Your task to perform on an android device: add a label to a message in the gmail app Image 0: 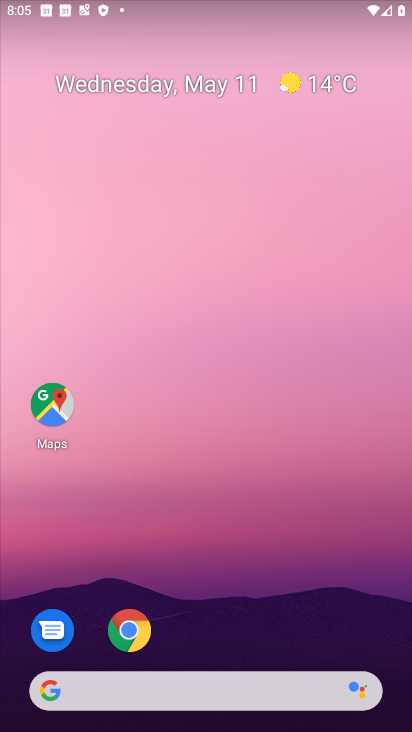
Step 0: drag from (216, 657) to (214, 163)
Your task to perform on an android device: add a label to a message in the gmail app Image 1: 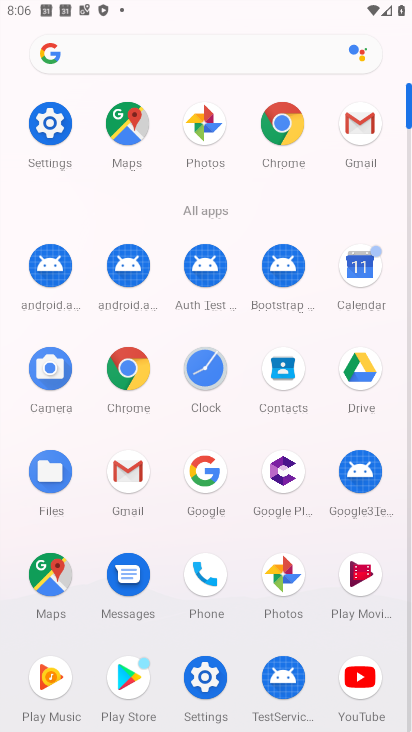
Step 1: click (131, 478)
Your task to perform on an android device: add a label to a message in the gmail app Image 2: 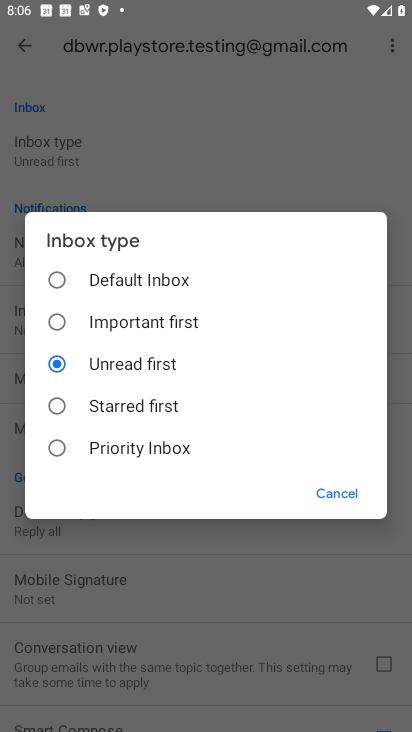
Step 2: click (339, 498)
Your task to perform on an android device: add a label to a message in the gmail app Image 3: 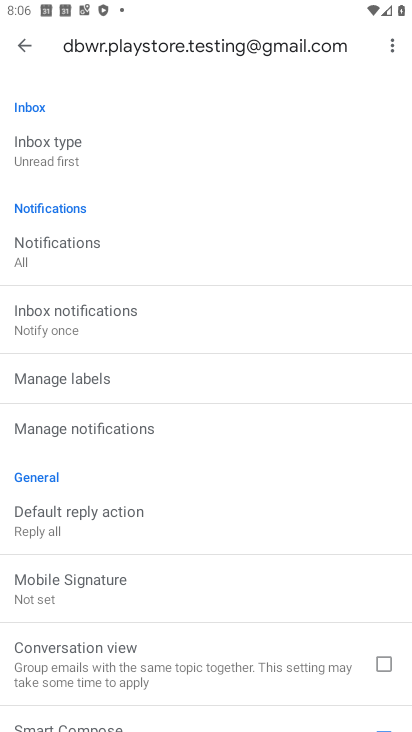
Step 3: click (24, 41)
Your task to perform on an android device: add a label to a message in the gmail app Image 4: 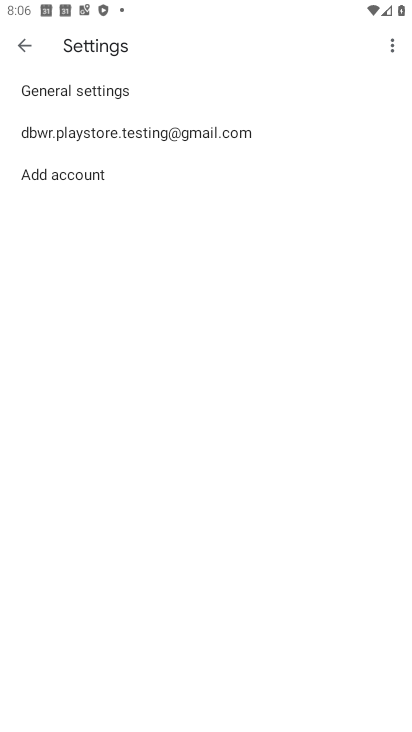
Step 4: click (44, 77)
Your task to perform on an android device: add a label to a message in the gmail app Image 5: 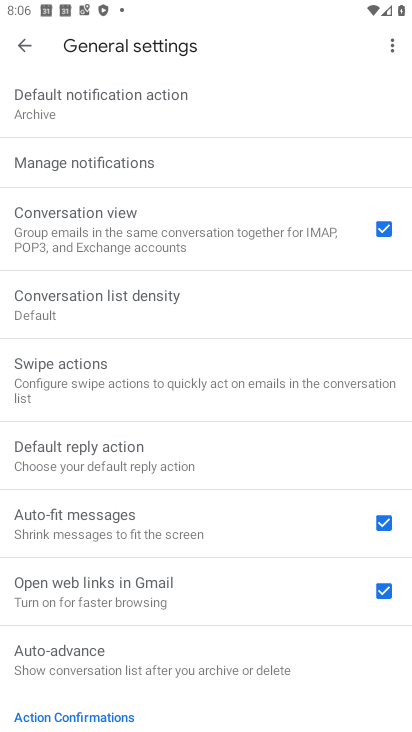
Step 5: click (26, 45)
Your task to perform on an android device: add a label to a message in the gmail app Image 6: 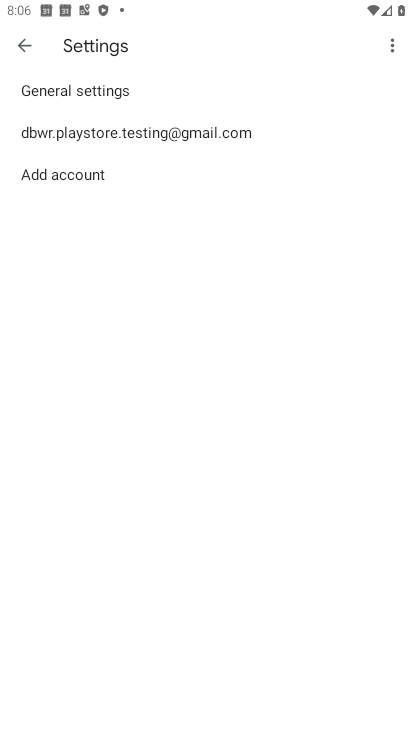
Step 6: click (26, 45)
Your task to perform on an android device: add a label to a message in the gmail app Image 7: 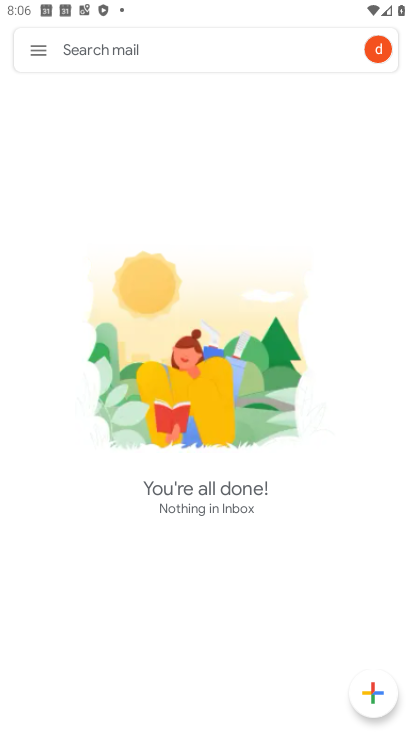
Step 7: task complete